Your task to perform on an android device: Open notification settings Image 0: 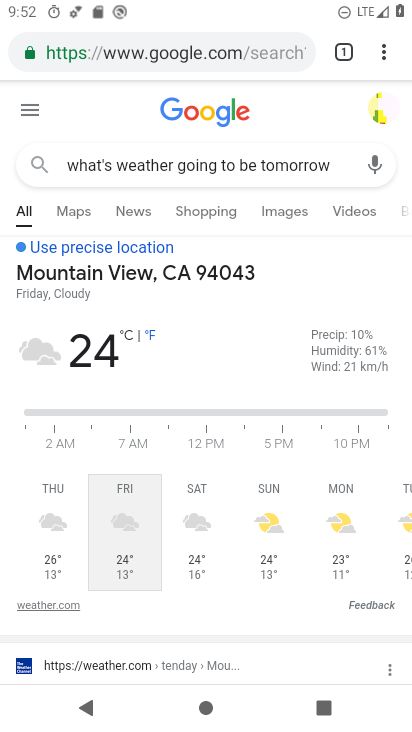
Step 0: press home button
Your task to perform on an android device: Open notification settings Image 1: 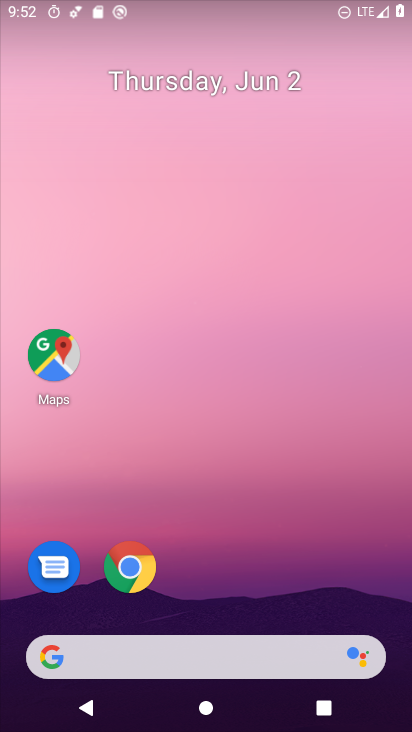
Step 1: drag from (358, 553) to (338, 187)
Your task to perform on an android device: Open notification settings Image 2: 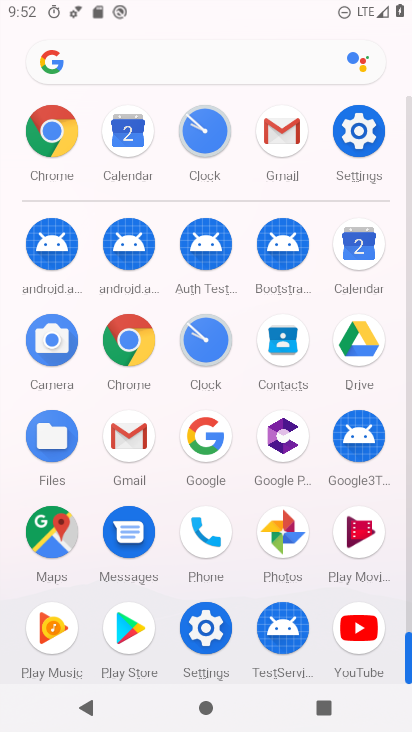
Step 2: click (362, 143)
Your task to perform on an android device: Open notification settings Image 3: 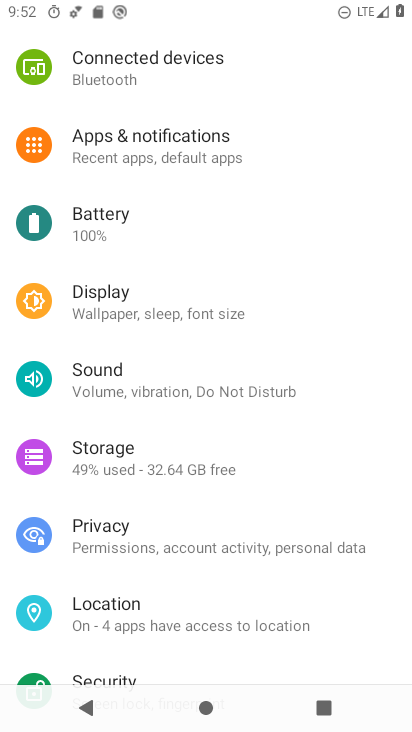
Step 3: click (249, 136)
Your task to perform on an android device: Open notification settings Image 4: 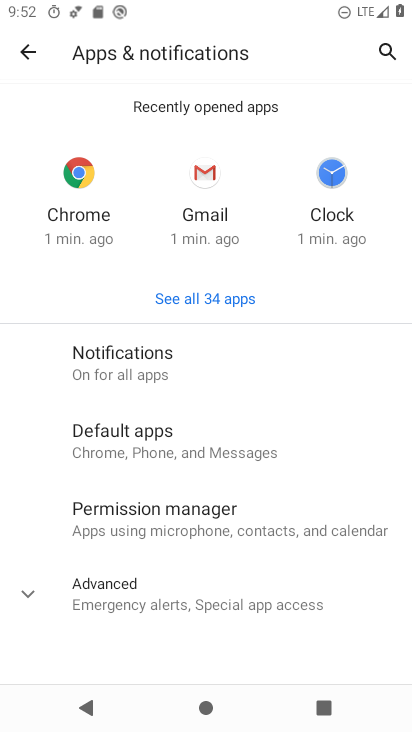
Step 4: click (221, 367)
Your task to perform on an android device: Open notification settings Image 5: 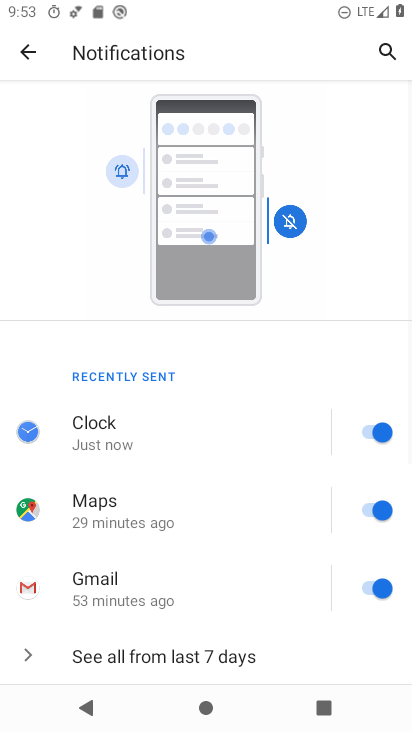
Step 5: task complete